Your task to perform on an android device: turn notification dots off Image 0: 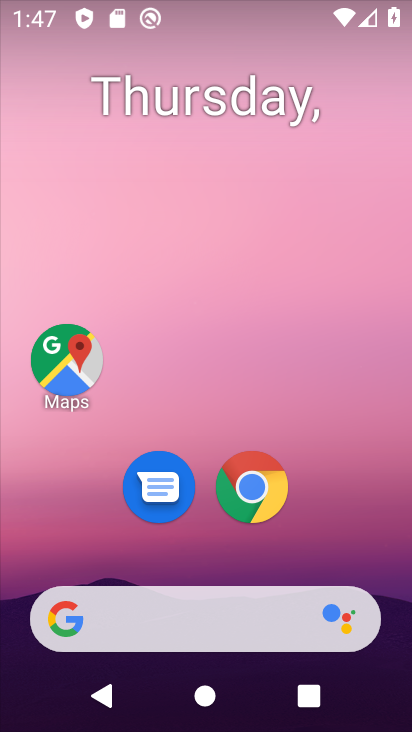
Step 0: drag from (208, 571) to (297, 36)
Your task to perform on an android device: turn notification dots off Image 1: 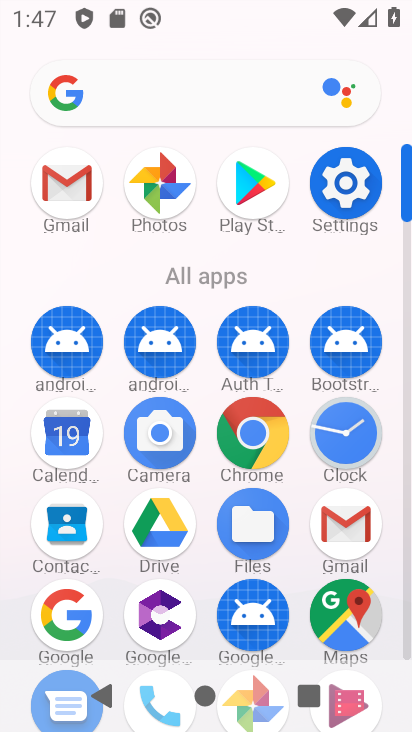
Step 1: click (341, 190)
Your task to perform on an android device: turn notification dots off Image 2: 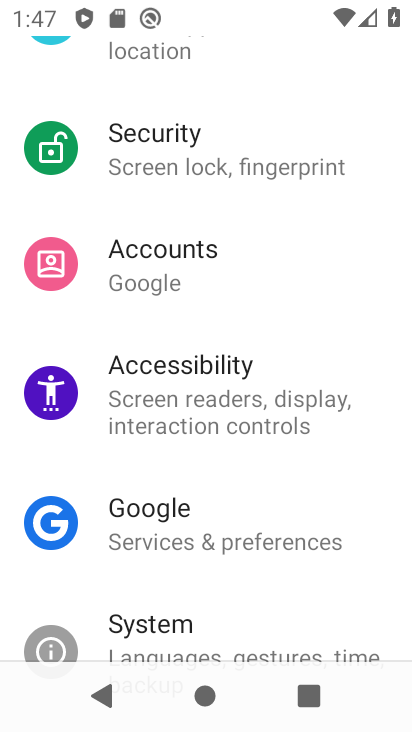
Step 2: drag from (265, 201) to (287, 399)
Your task to perform on an android device: turn notification dots off Image 3: 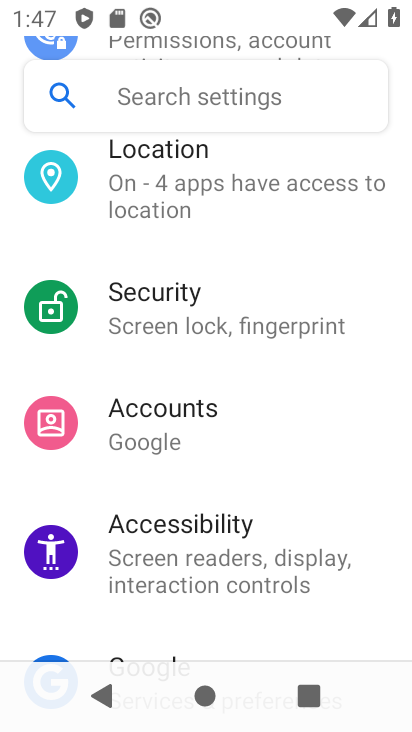
Step 3: drag from (280, 238) to (289, 439)
Your task to perform on an android device: turn notification dots off Image 4: 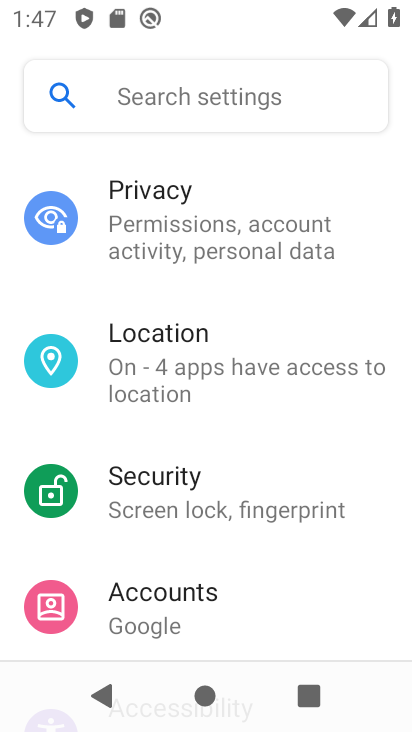
Step 4: drag from (271, 308) to (293, 471)
Your task to perform on an android device: turn notification dots off Image 5: 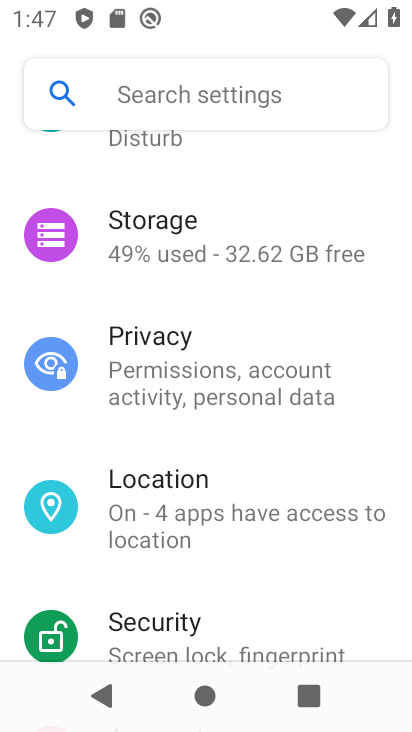
Step 5: drag from (250, 245) to (267, 410)
Your task to perform on an android device: turn notification dots off Image 6: 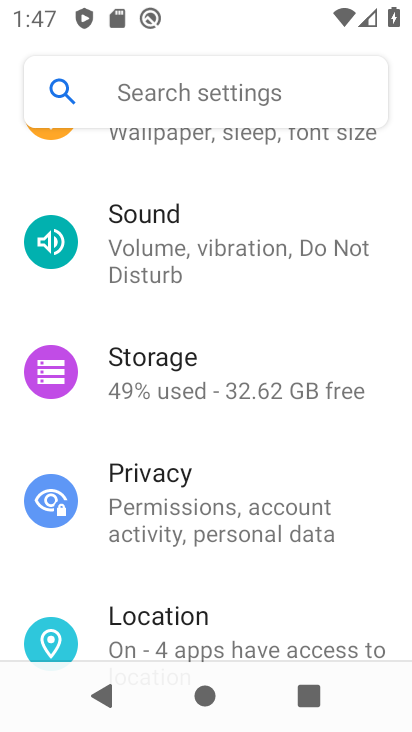
Step 6: drag from (212, 241) to (265, 375)
Your task to perform on an android device: turn notification dots off Image 7: 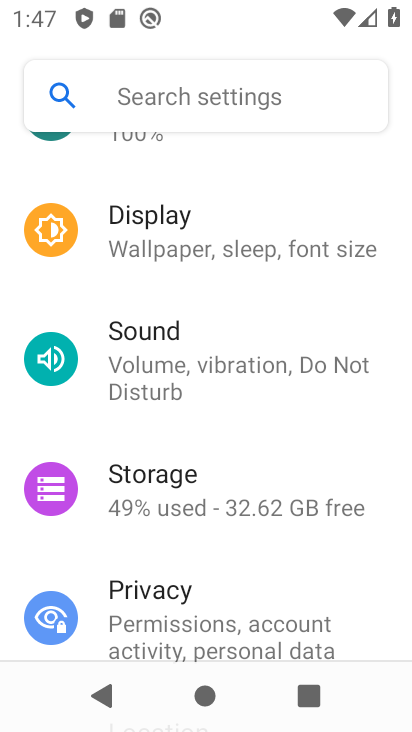
Step 7: drag from (372, 197) to (293, 424)
Your task to perform on an android device: turn notification dots off Image 8: 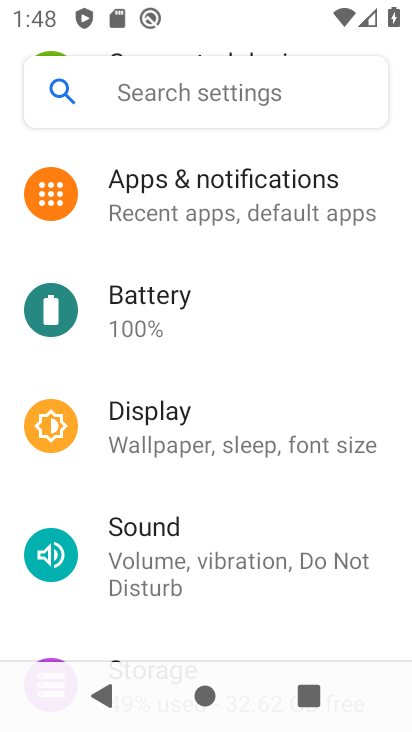
Step 8: click (220, 219)
Your task to perform on an android device: turn notification dots off Image 9: 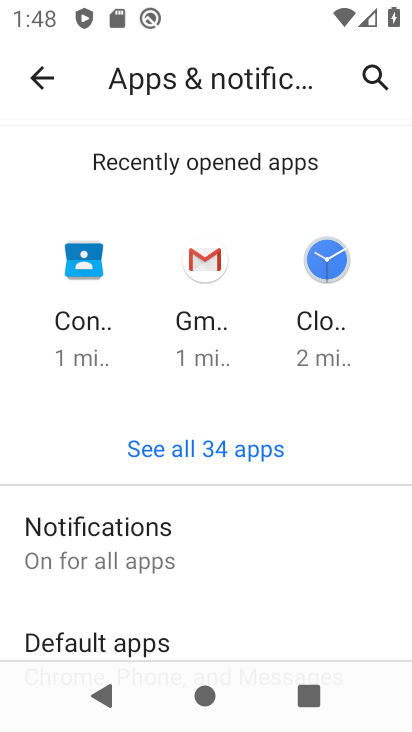
Step 9: click (212, 545)
Your task to perform on an android device: turn notification dots off Image 10: 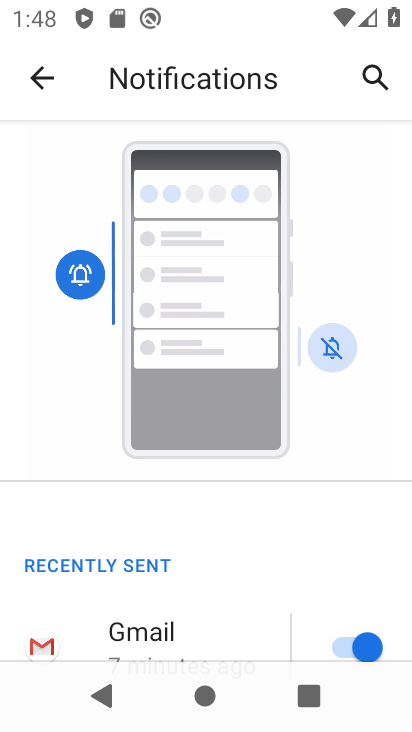
Step 10: drag from (183, 634) to (307, 214)
Your task to perform on an android device: turn notification dots off Image 11: 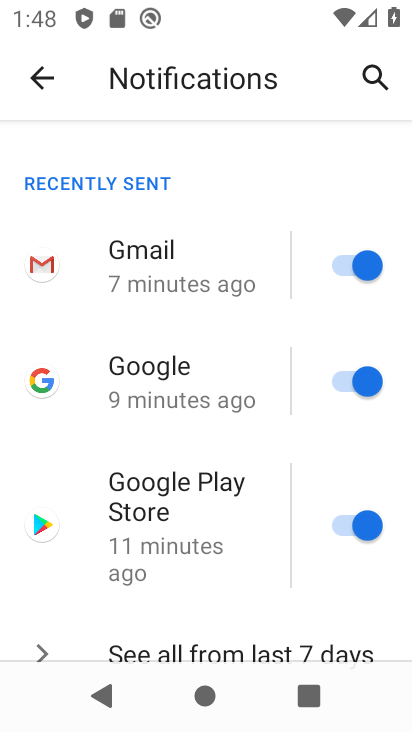
Step 11: drag from (200, 583) to (287, 143)
Your task to perform on an android device: turn notification dots off Image 12: 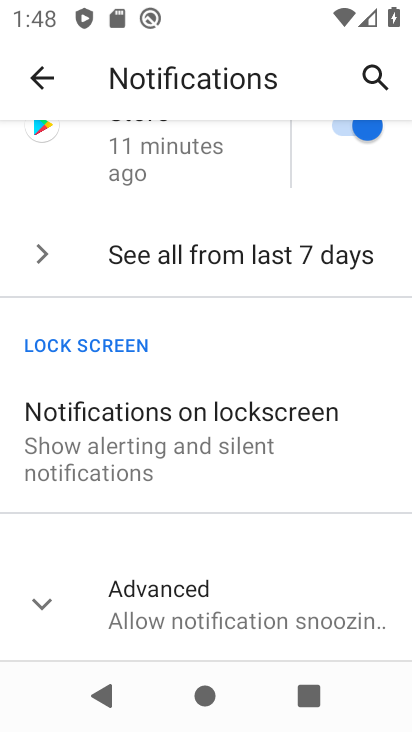
Step 12: click (140, 583)
Your task to perform on an android device: turn notification dots off Image 13: 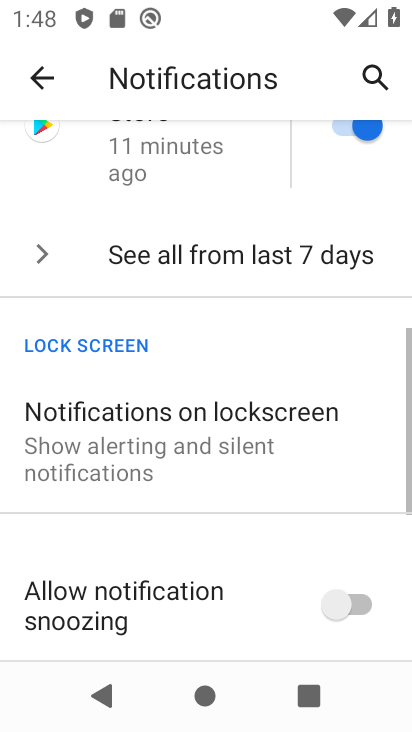
Step 13: task complete